Your task to perform on an android device: change the clock style Image 0: 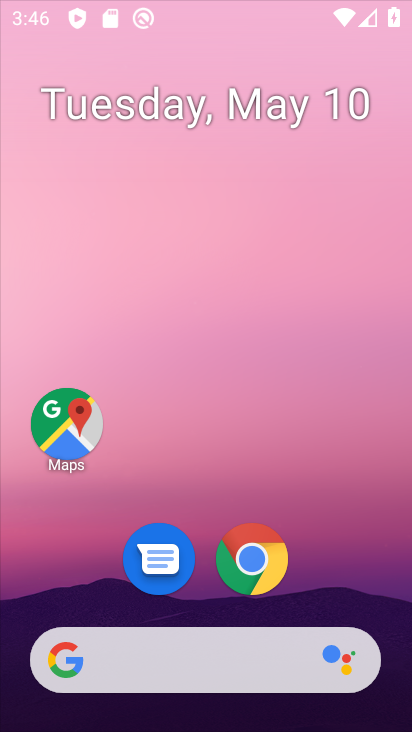
Step 0: drag from (92, 618) to (219, 149)
Your task to perform on an android device: change the clock style Image 1: 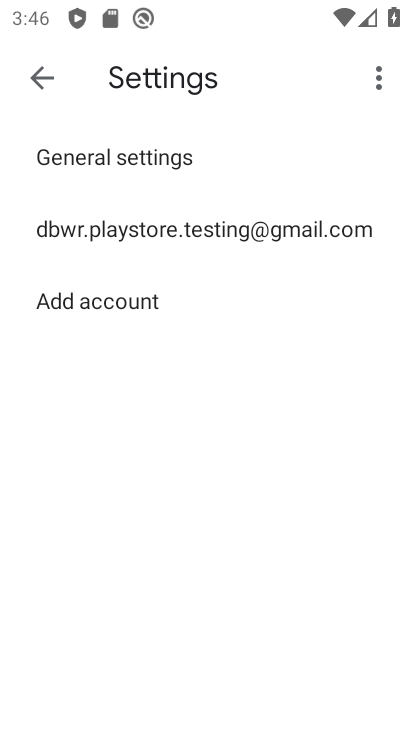
Step 1: press back button
Your task to perform on an android device: change the clock style Image 2: 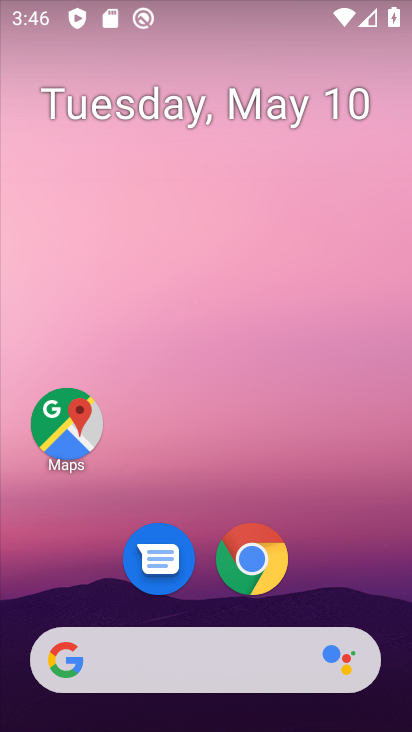
Step 2: drag from (192, 614) to (289, 59)
Your task to perform on an android device: change the clock style Image 3: 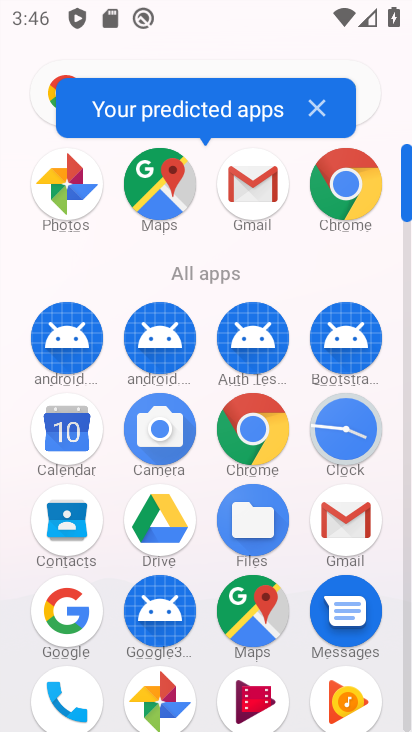
Step 3: click (370, 439)
Your task to perform on an android device: change the clock style Image 4: 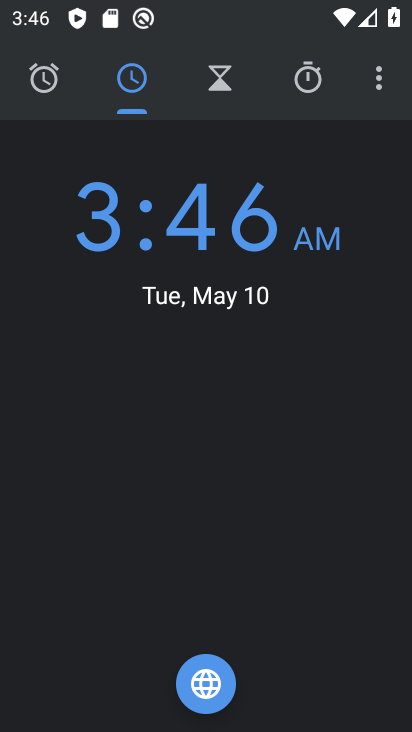
Step 4: click (368, 87)
Your task to perform on an android device: change the clock style Image 5: 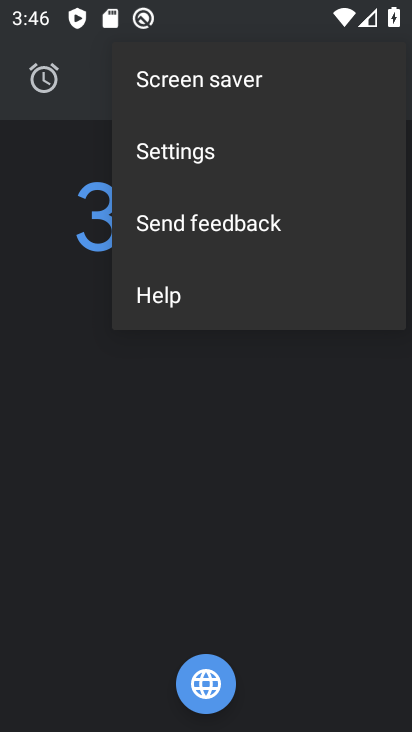
Step 5: click (283, 137)
Your task to perform on an android device: change the clock style Image 6: 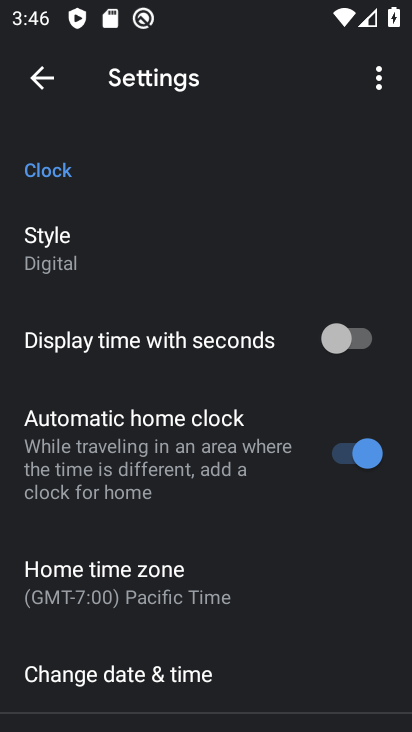
Step 6: click (170, 260)
Your task to perform on an android device: change the clock style Image 7: 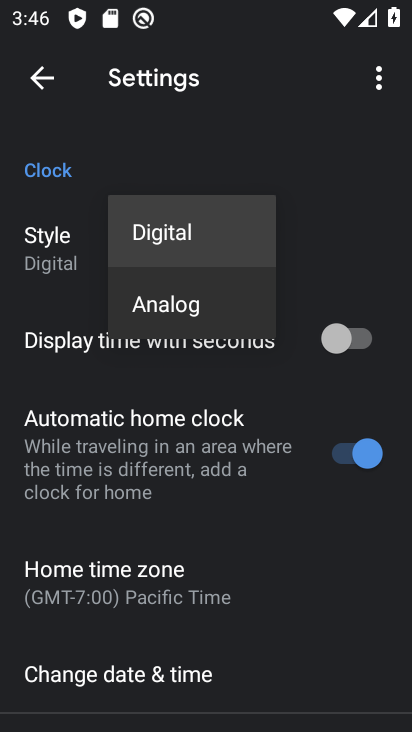
Step 7: click (180, 303)
Your task to perform on an android device: change the clock style Image 8: 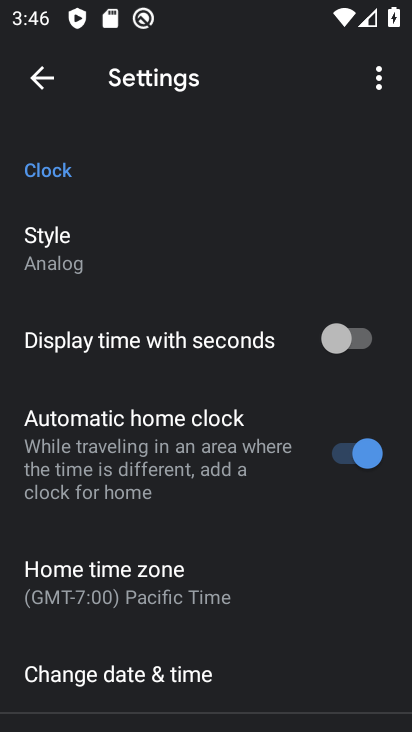
Step 8: task complete